Your task to perform on an android device: Go to privacy settings Image 0: 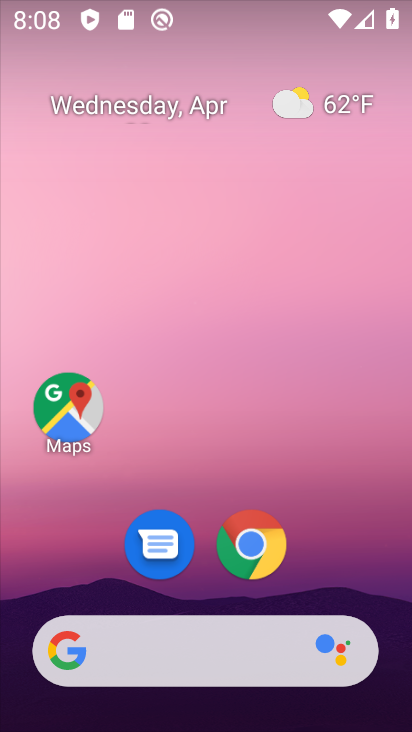
Step 0: click (249, 559)
Your task to perform on an android device: Go to privacy settings Image 1: 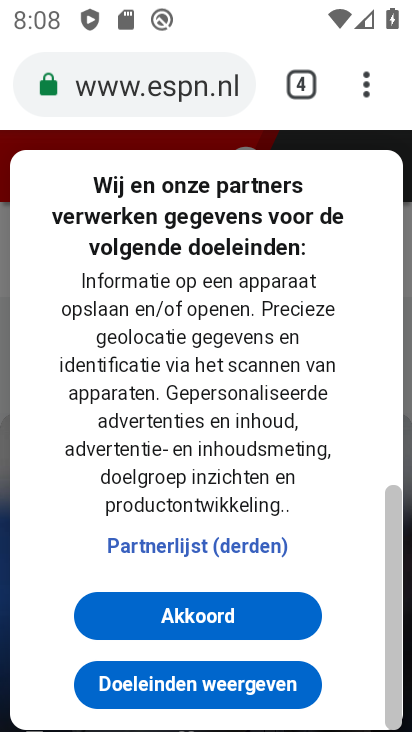
Step 1: drag from (366, 87) to (240, 591)
Your task to perform on an android device: Go to privacy settings Image 2: 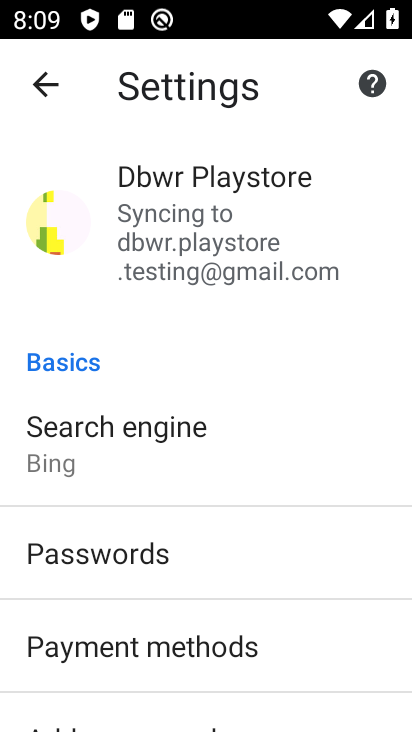
Step 2: drag from (326, 655) to (270, 251)
Your task to perform on an android device: Go to privacy settings Image 3: 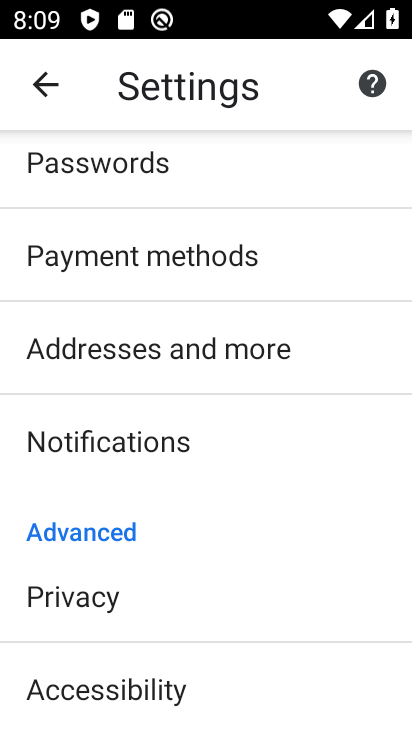
Step 3: click (75, 599)
Your task to perform on an android device: Go to privacy settings Image 4: 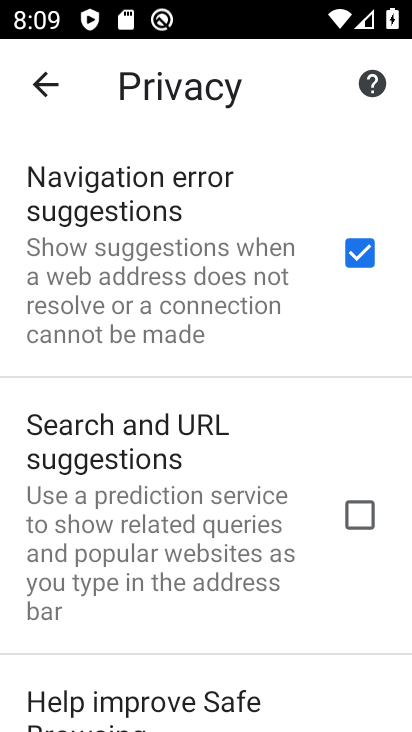
Step 4: task complete